Your task to perform on an android device: turn off smart reply in the gmail app Image 0: 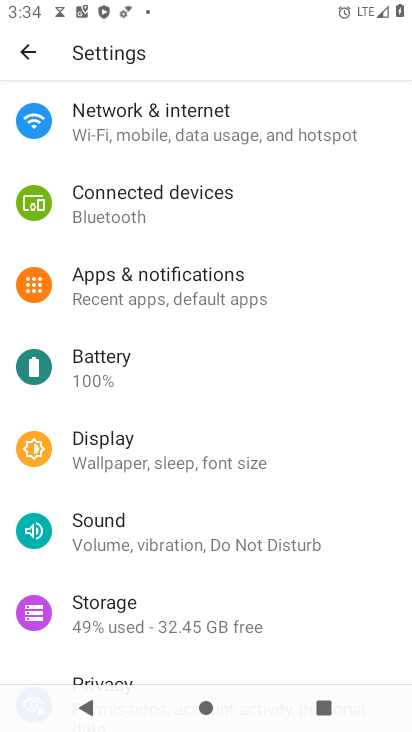
Step 0: press home button
Your task to perform on an android device: turn off smart reply in the gmail app Image 1: 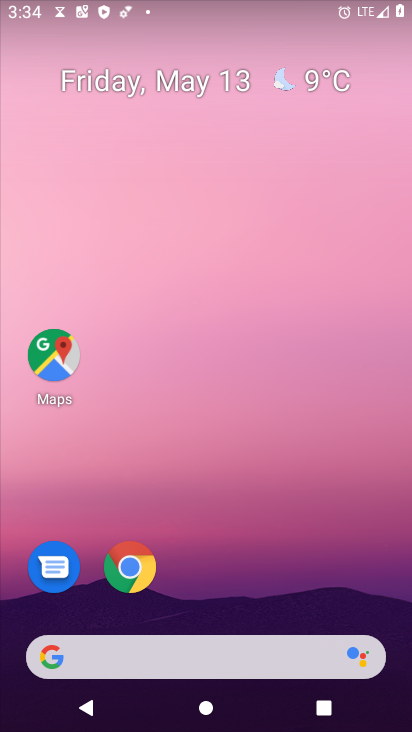
Step 1: drag from (345, 588) to (400, 137)
Your task to perform on an android device: turn off smart reply in the gmail app Image 2: 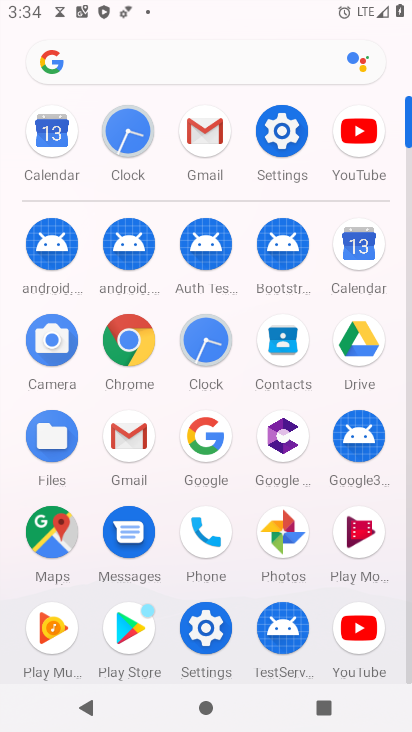
Step 2: click (204, 147)
Your task to perform on an android device: turn off smart reply in the gmail app Image 3: 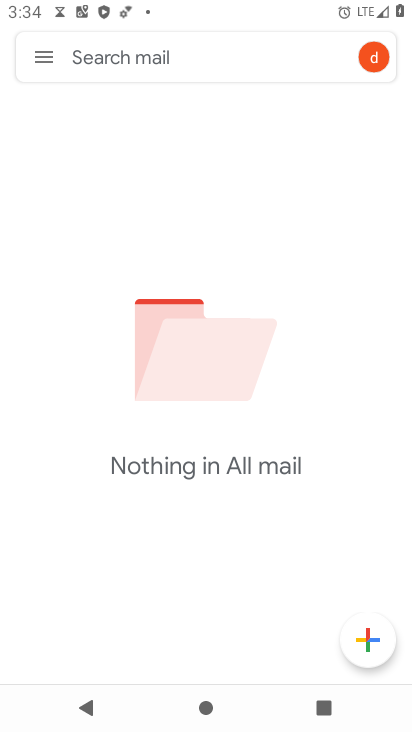
Step 3: click (42, 56)
Your task to perform on an android device: turn off smart reply in the gmail app Image 4: 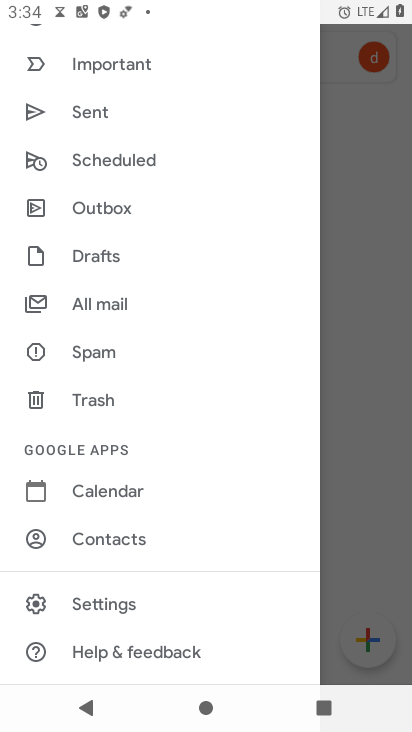
Step 4: click (93, 601)
Your task to perform on an android device: turn off smart reply in the gmail app Image 5: 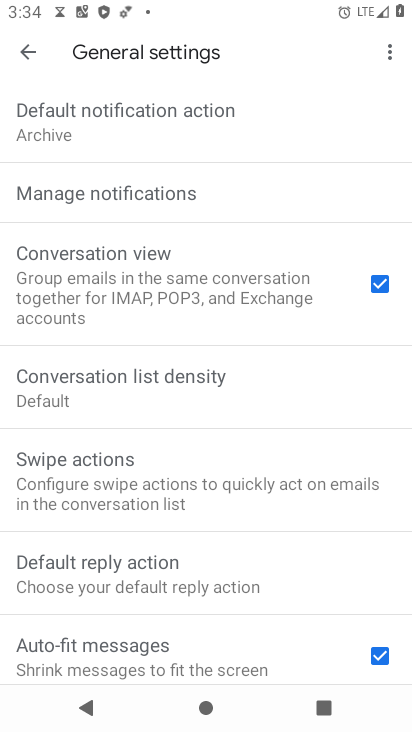
Step 5: click (22, 50)
Your task to perform on an android device: turn off smart reply in the gmail app Image 6: 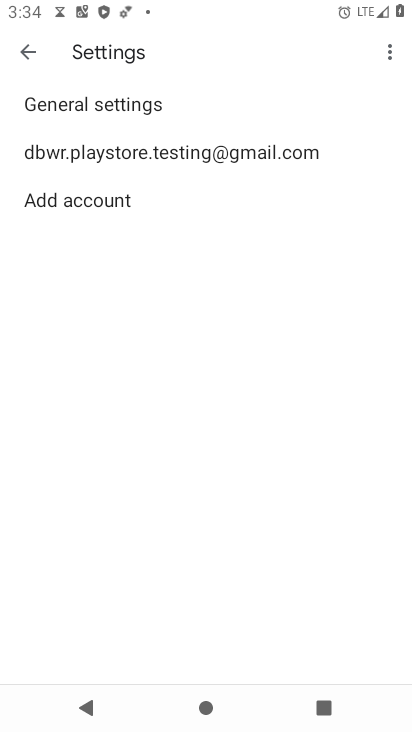
Step 6: click (72, 155)
Your task to perform on an android device: turn off smart reply in the gmail app Image 7: 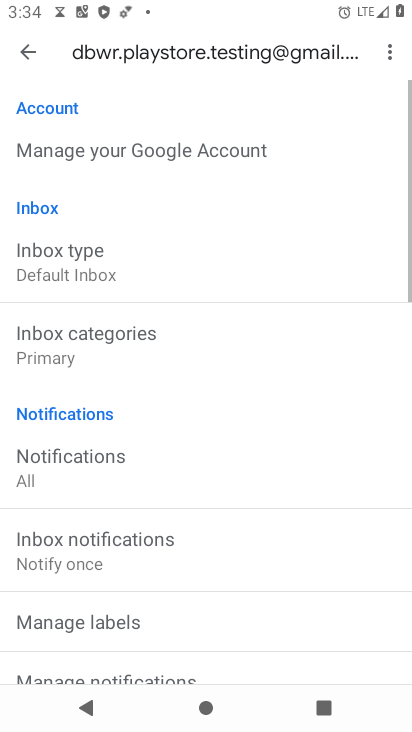
Step 7: drag from (200, 542) to (177, 145)
Your task to perform on an android device: turn off smart reply in the gmail app Image 8: 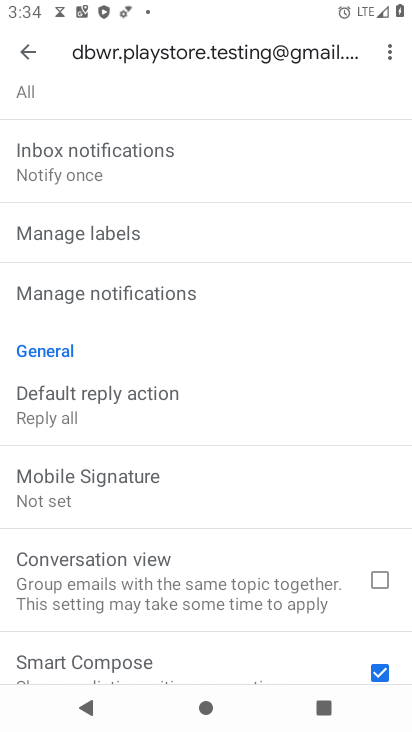
Step 8: drag from (166, 465) to (166, 103)
Your task to perform on an android device: turn off smart reply in the gmail app Image 9: 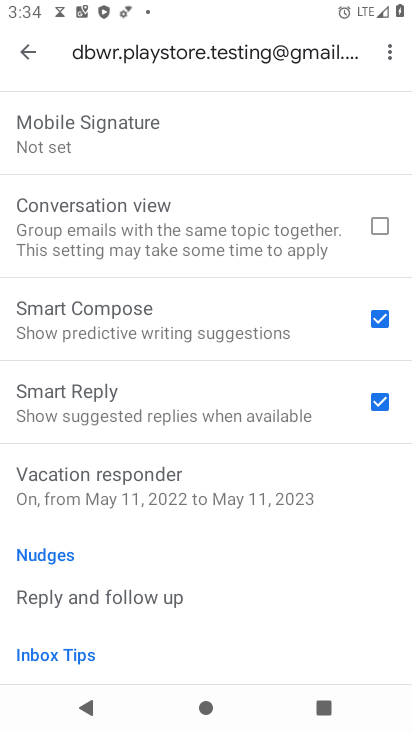
Step 9: click (381, 400)
Your task to perform on an android device: turn off smart reply in the gmail app Image 10: 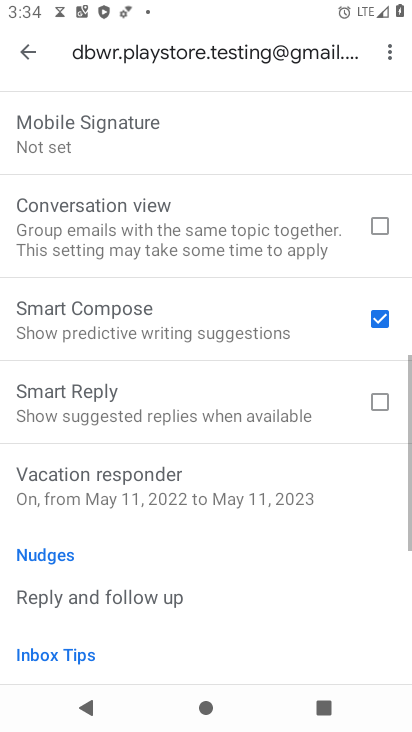
Step 10: task complete